Your task to perform on an android device: set the timer Image 0: 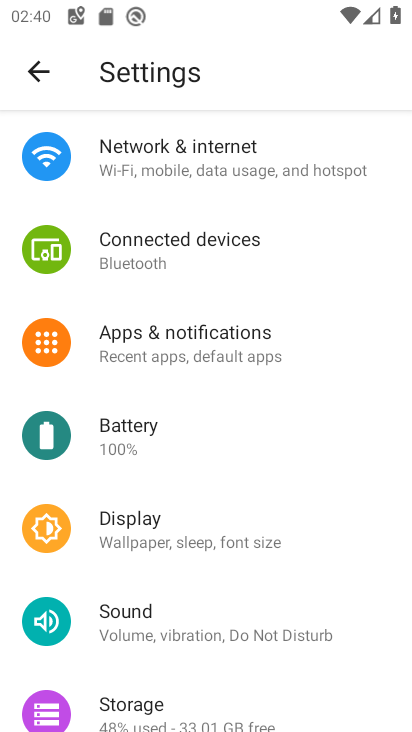
Step 0: press home button
Your task to perform on an android device: set the timer Image 1: 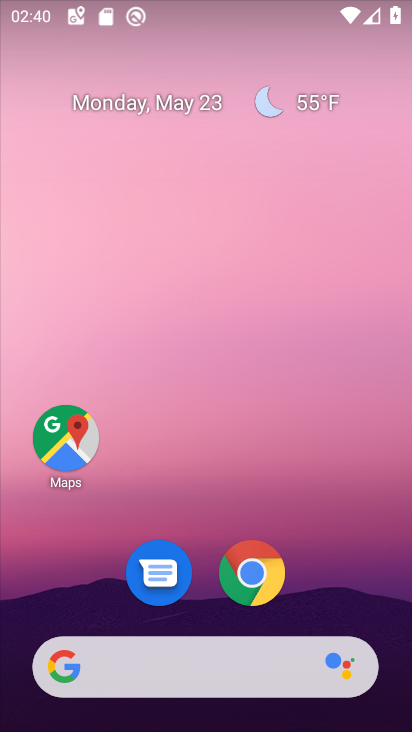
Step 1: drag from (344, 584) to (317, 178)
Your task to perform on an android device: set the timer Image 2: 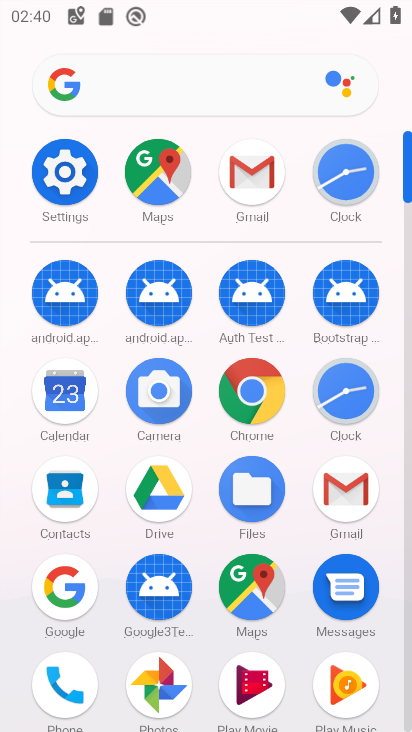
Step 2: click (325, 172)
Your task to perform on an android device: set the timer Image 3: 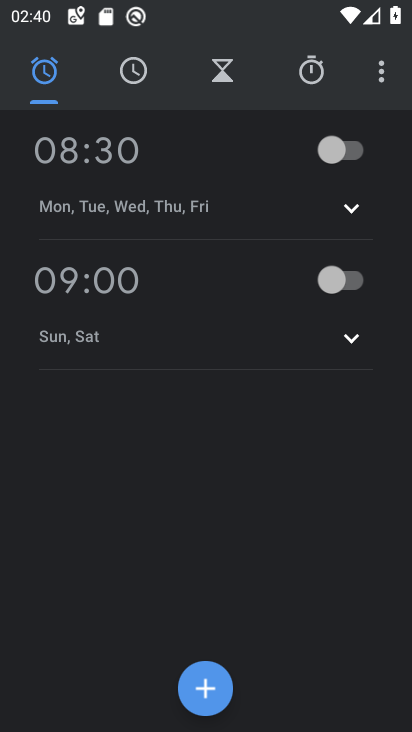
Step 3: click (127, 92)
Your task to perform on an android device: set the timer Image 4: 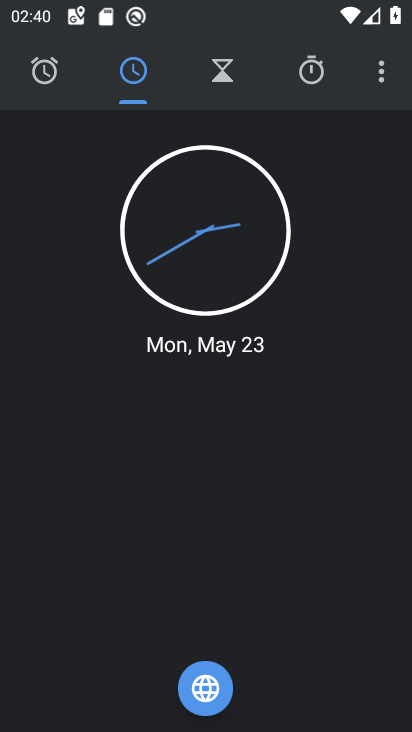
Step 4: click (369, 66)
Your task to perform on an android device: set the timer Image 5: 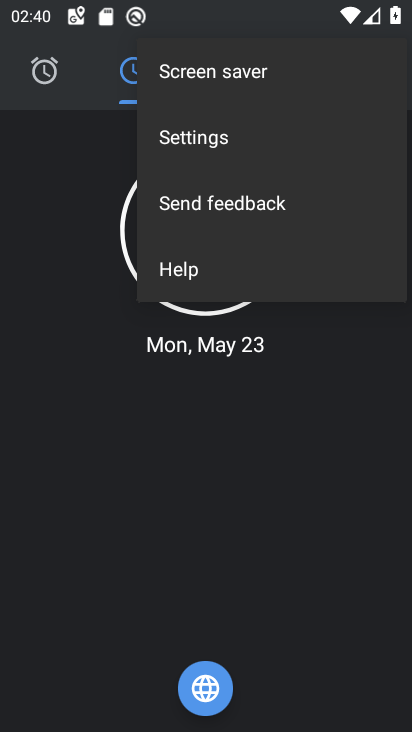
Step 5: click (212, 134)
Your task to perform on an android device: set the timer Image 6: 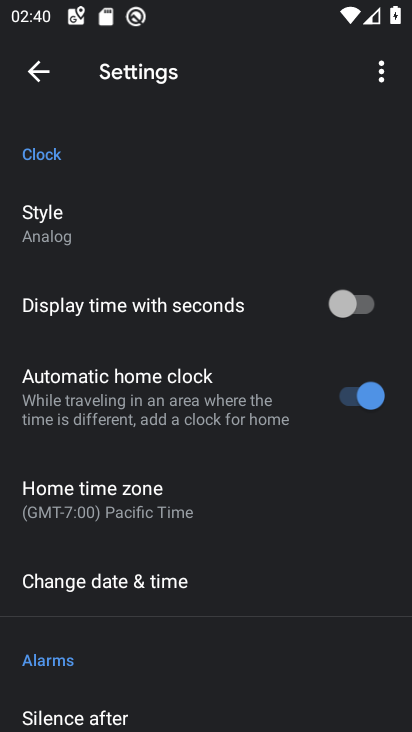
Step 6: drag from (136, 542) to (132, 257)
Your task to perform on an android device: set the timer Image 7: 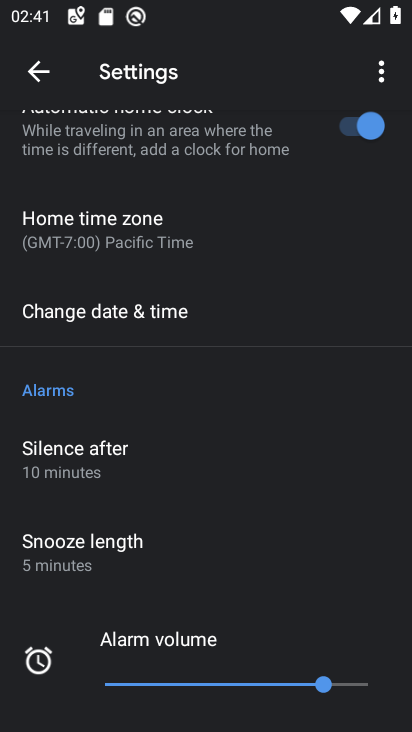
Step 7: drag from (90, 559) to (97, 208)
Your task to perform on an android device: set the timer Image 8: 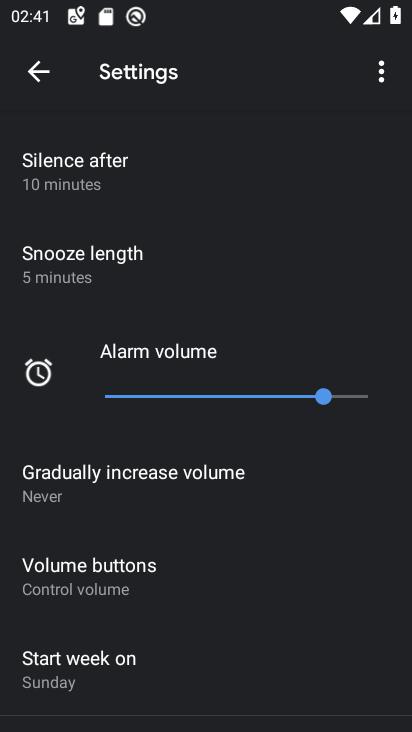
Step 8: drag from (14, 561) to (46, 254)
Your task to perform on an android device: set the timer Image 9: 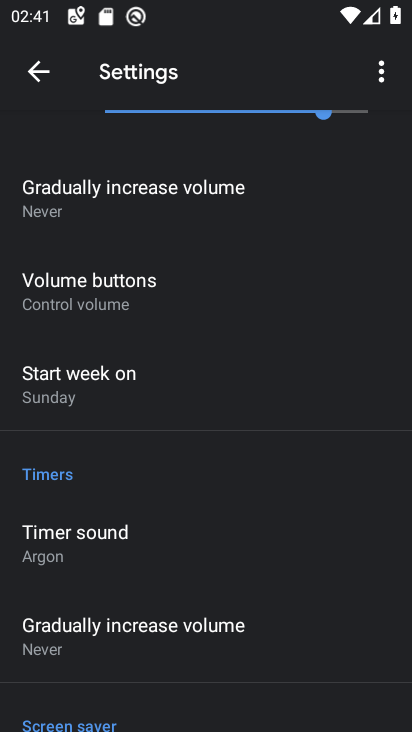
Step 9: drag from (150, 494) to (141, 116)
Your task to perform on an android device: set the timer Image 10: 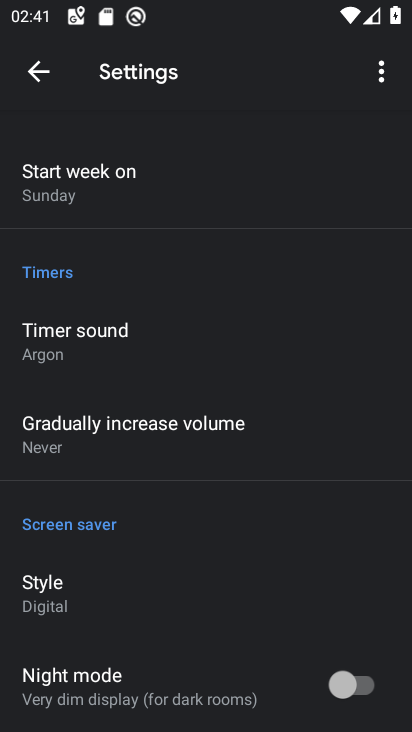
Step 10: press back button
Your task to perform on an android device: set the timer Image 11: 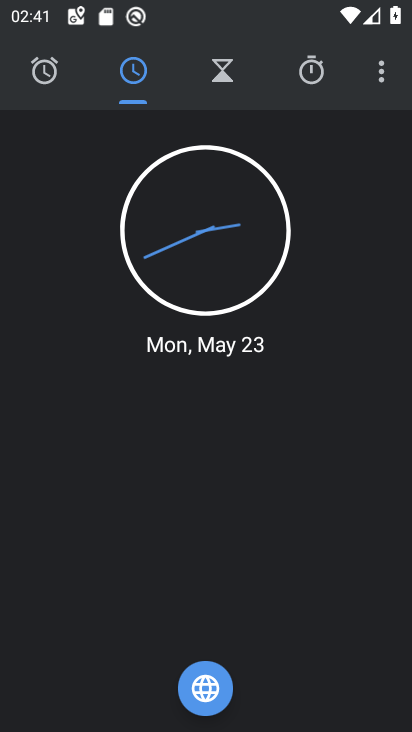
Step 11: click (216, 82)
Your task to perform on an android device: set the timer Image 12: 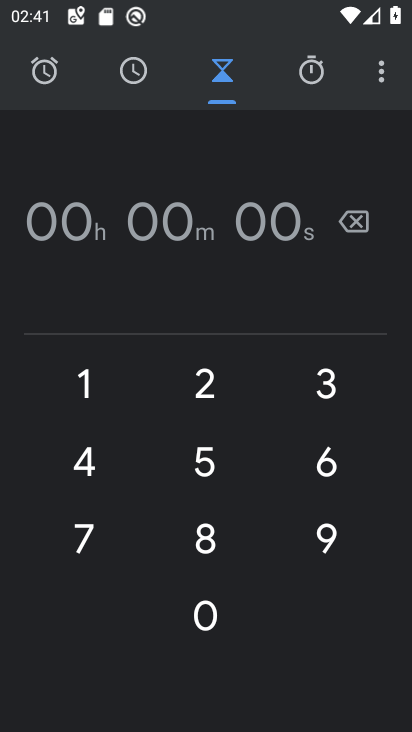
Step 12: task complete